Your task to perform on an android device: star an email in the gmail app Image 0: 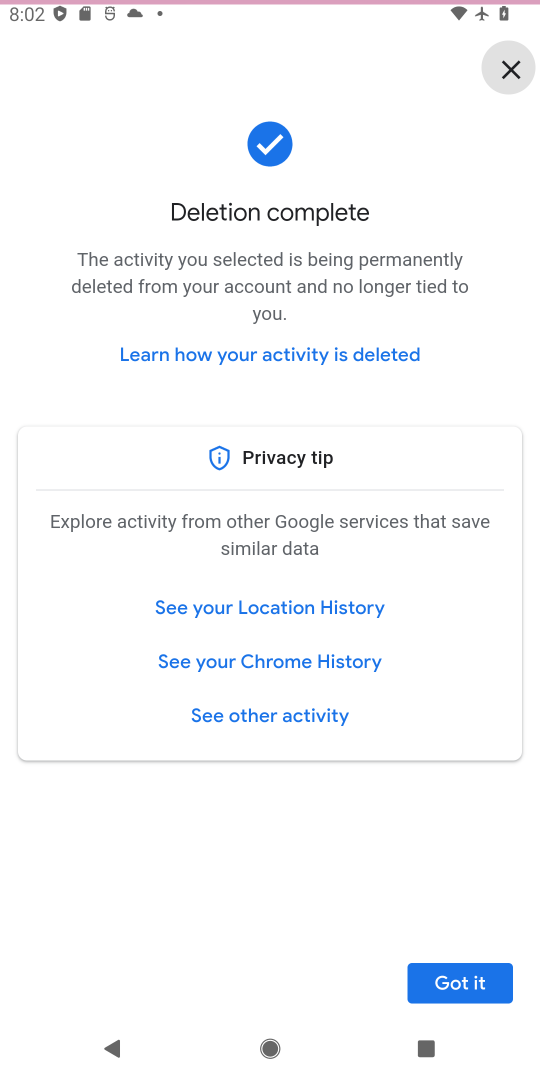
Step 0: drag from (320, 426) to (366, 1)
Your task to perform on an android device: star an email in the gmail app Image 1: 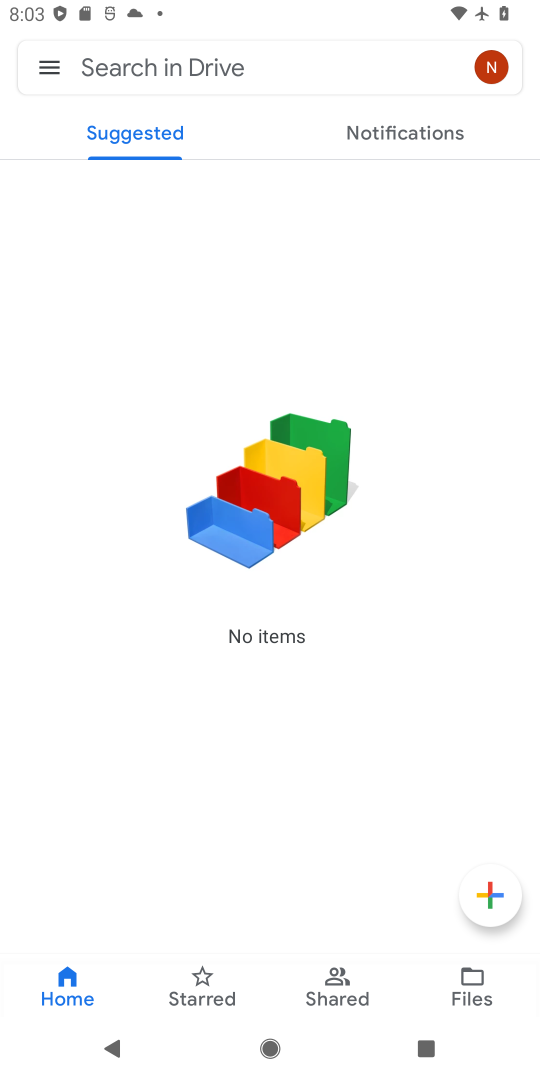
Step 1: press home button
Your task to perform on an android device: star an email in the gmail app Image 2: 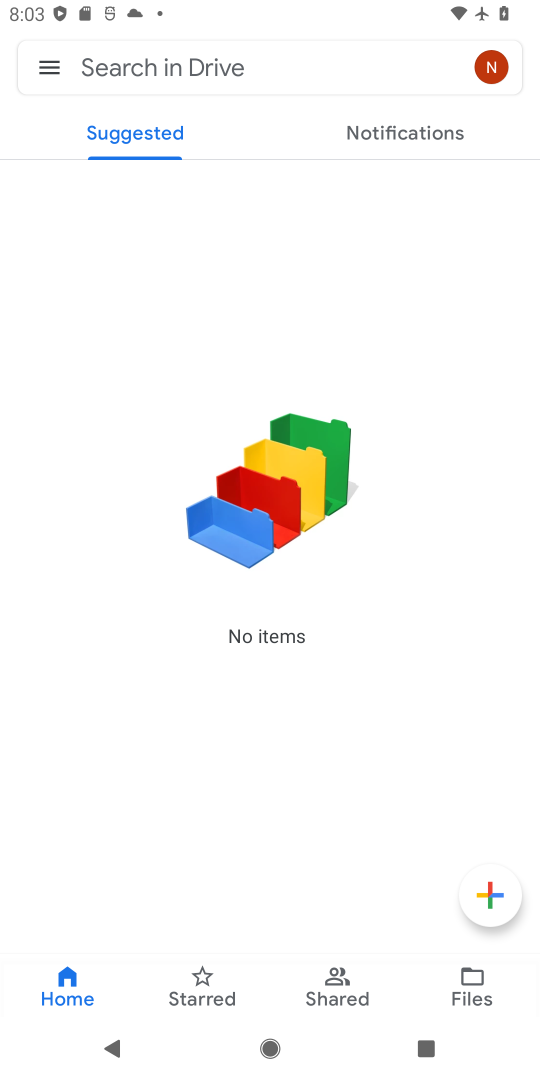
Step 2: press home button
Your task to perform on an android device: star an email in the gmail app Image 3: 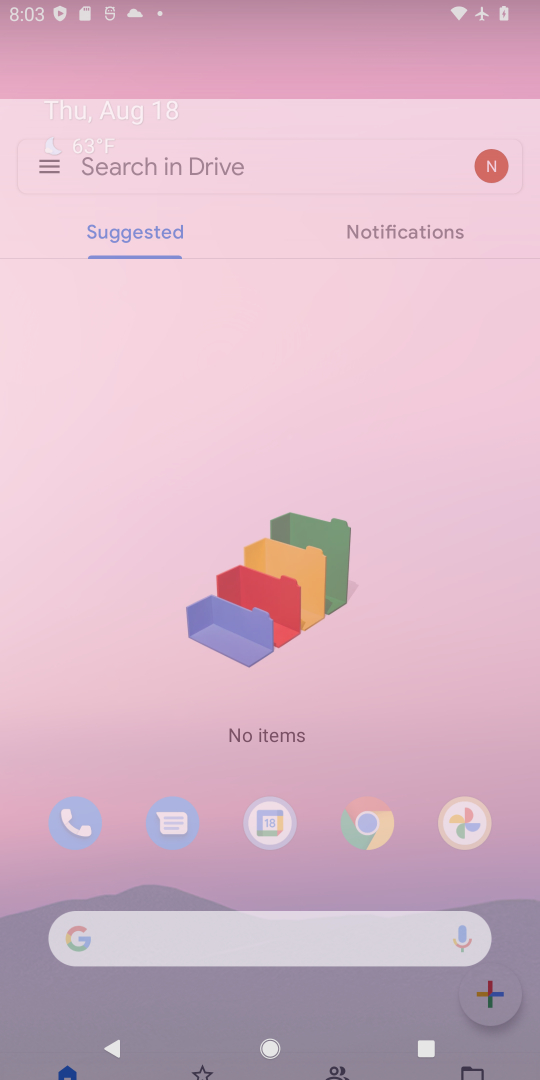
Step 3: press home button
Your task to perform on an android device: star an email in the gmail app Image 4: 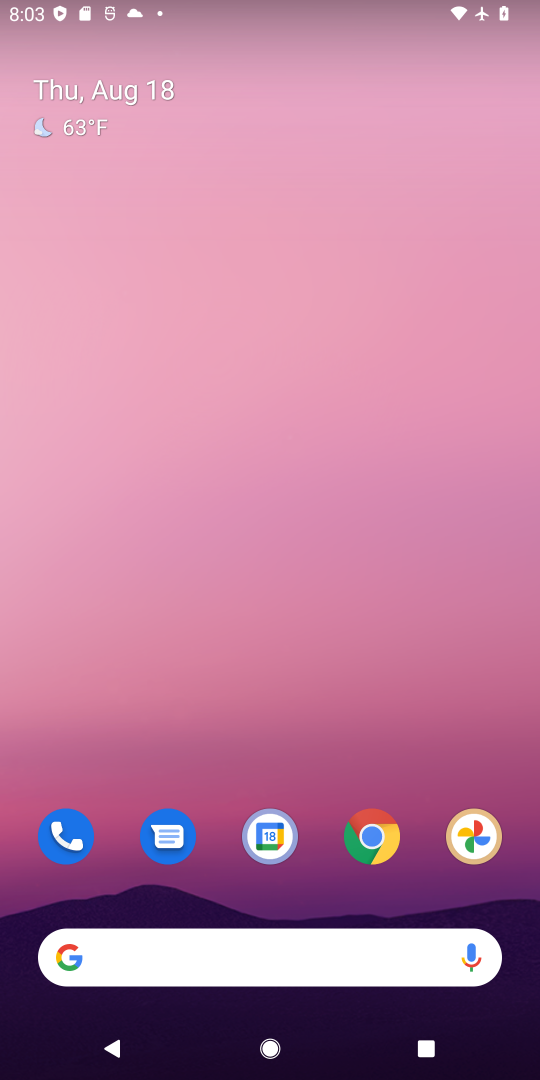
Step 4: drag from (272, 719) to (293, 37)
Your task to perform on an android device: star an email in the gmail app Image 5: 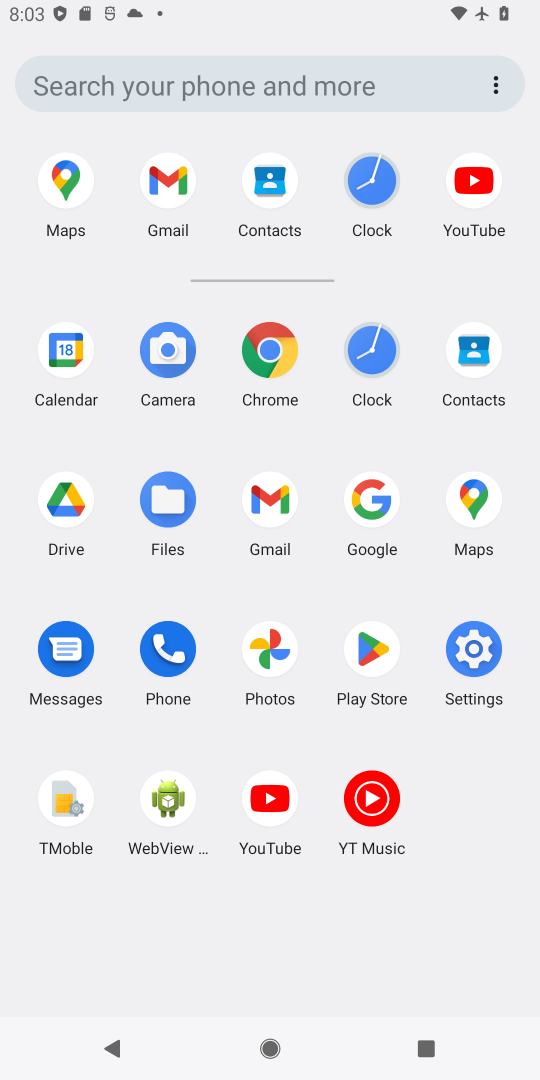
Step 5: click (268, 504)
Your task to perform on an android device: star an email in the gmail app Image 6: 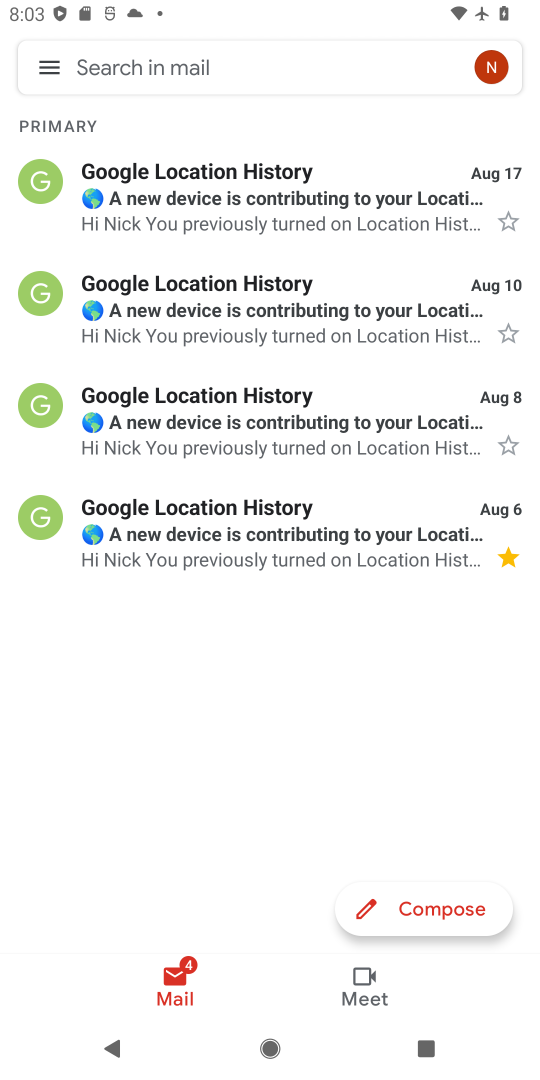
Step 6: click (53, 70)
Your task to perform on an android device: star an email in the gmail app Image 7: 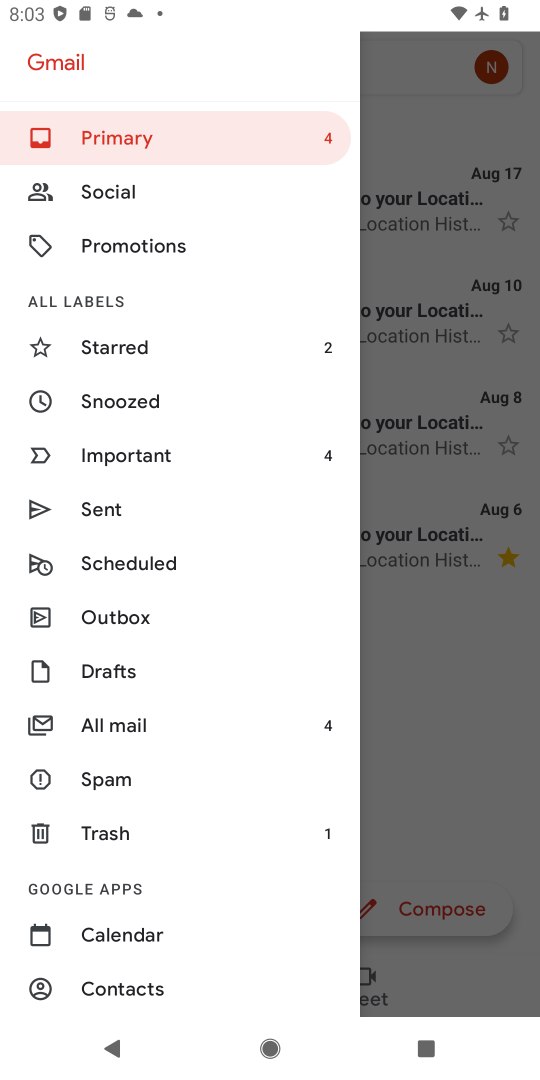
Step 7: click (497, 359)
Your task to perform on an android device: star an email in the gmail app Image 8: 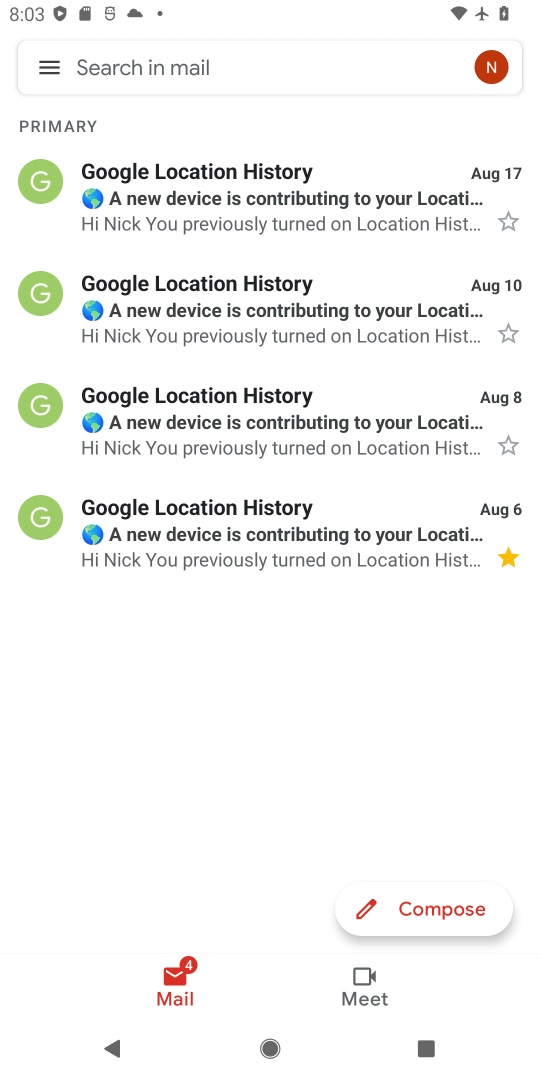
Step 8: click (509, 341)
Your task to perform on an android device: star an email in the gmail app Image 9: 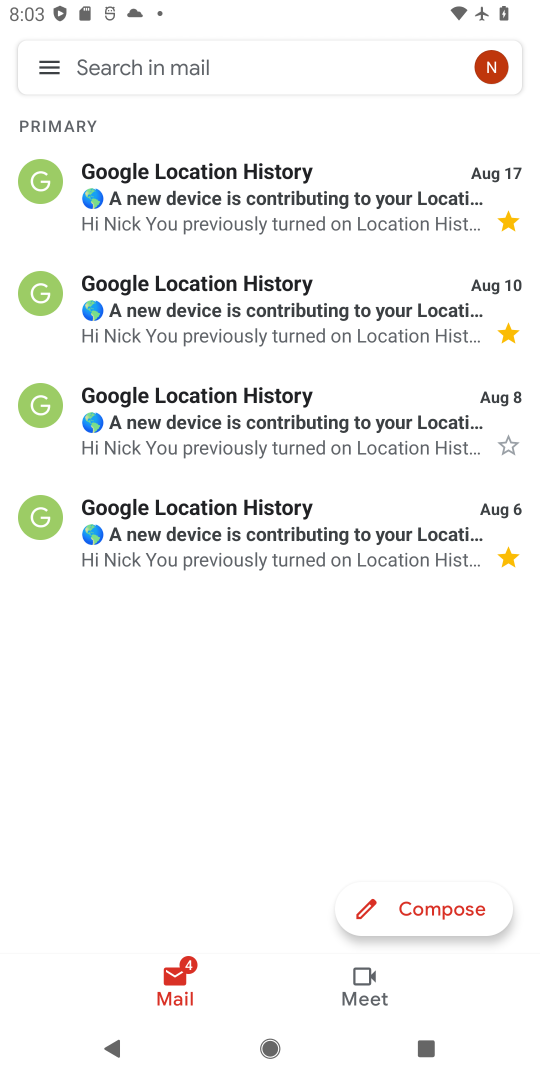
Step 9: task complete